Your task to perform on an android device: change your default location settings in chrome Image 0: 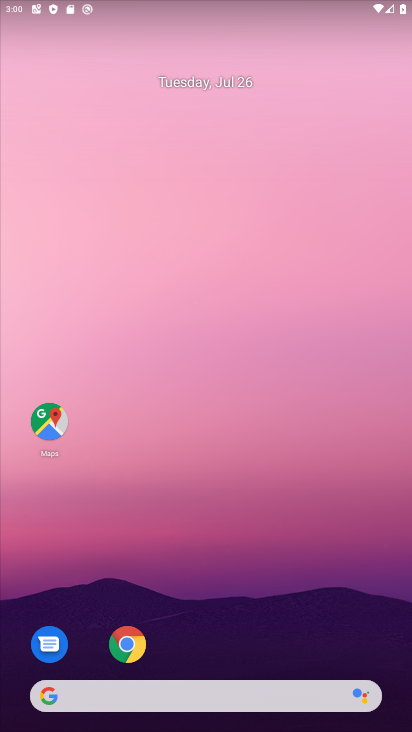
Step 0: click (121, 636)
Your task to perform on an android device: change your default location settings in chrome Image 1: 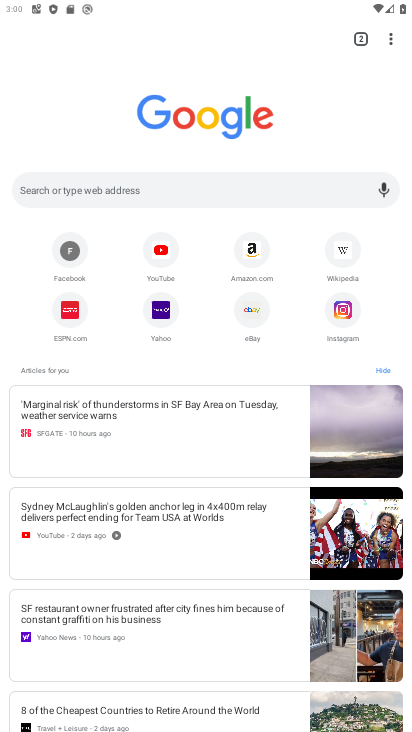
Step 1: click (388, 36)
Your task to perform on an android device: change your default location settings in chrome Image 2: 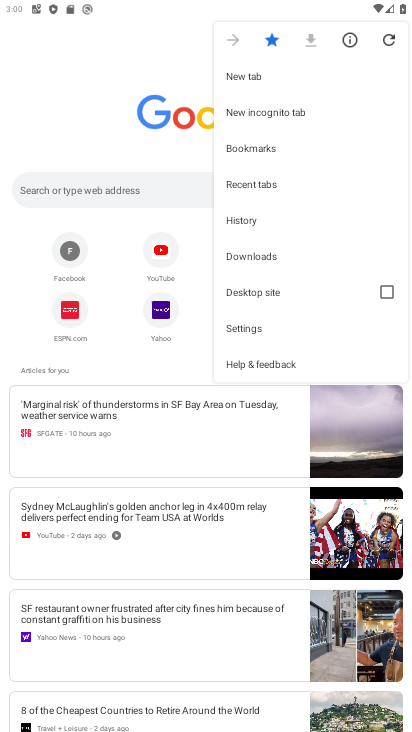
Step 2: click (247, 328)
Your task to perform on an android device: change your default location settings in chrome Image 3: 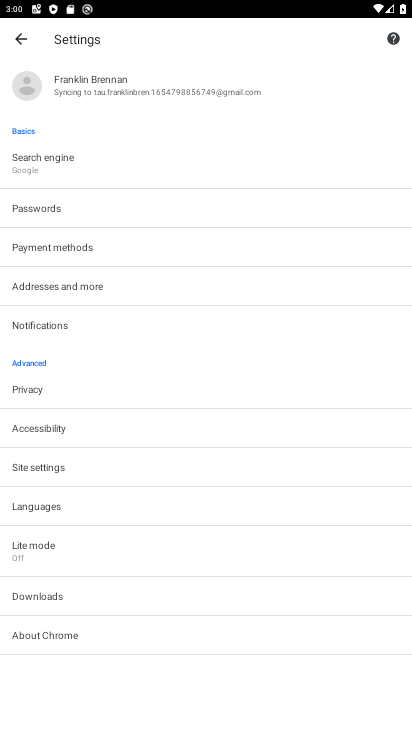
Step 3: click (25, 468)
Your task to perform on an android device: change your default location settings in chrome Image 4: 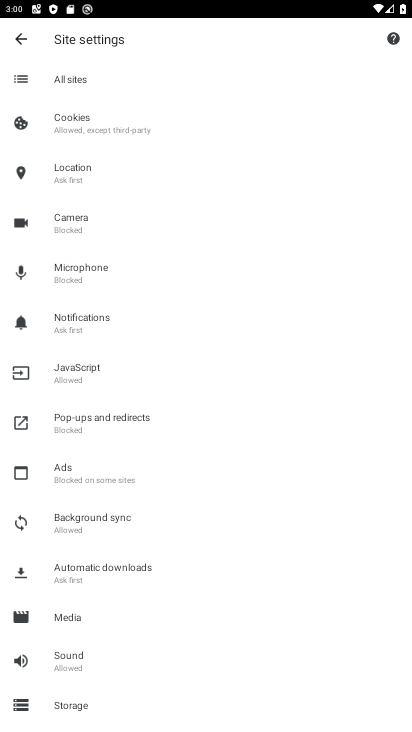
Step 4: click (73, 172)
Your task to perform on an android device: change your default location settings in chrome Image 5: 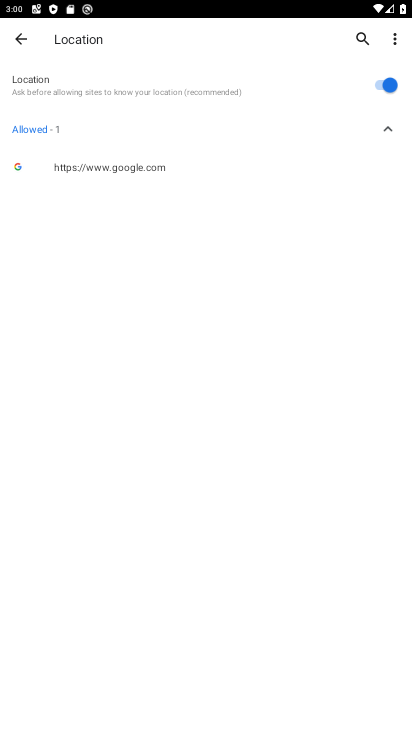
Step 5: click (381, 88)
Your task to perform on an android device: change your default location settings in chrome Image 6: 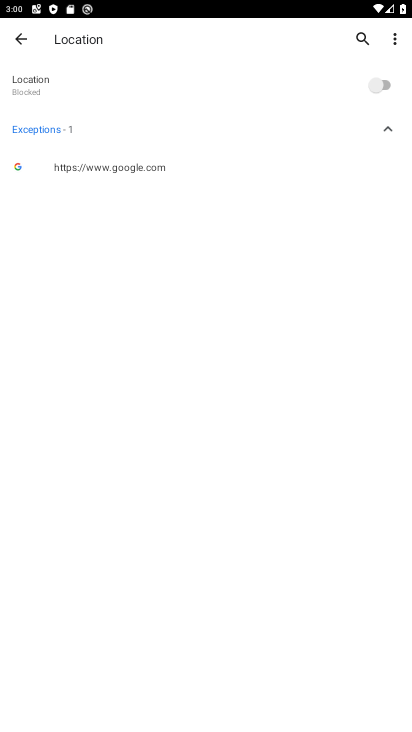
Step 6: task complete